Your task to perform on an android device: Open the calendar app, open the side menu, and click the "Day" option Image 0: 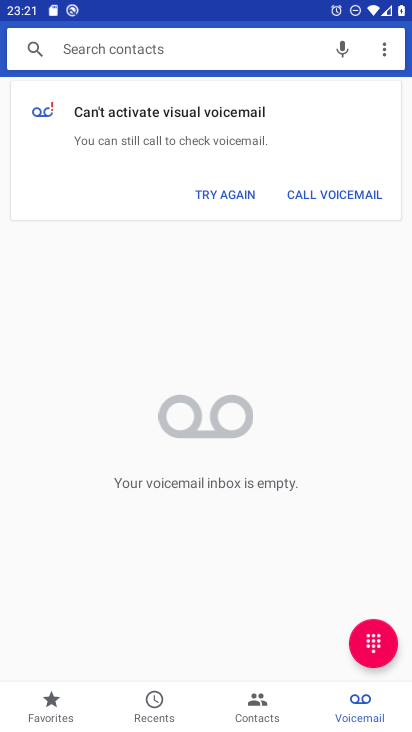
Step 0: press home button
Your task to perform on an android device: Open the calendar app, open the side menu, and click the "Day" option Image 1: 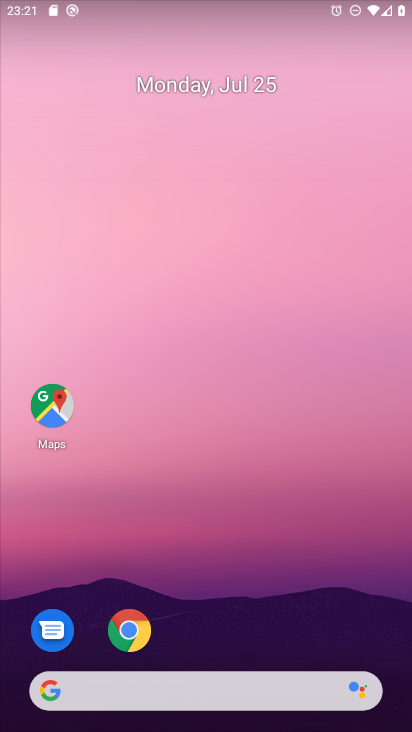
Step 1: drag from (326, 615) to (273, 107)
Your task to perform on an android device: Open the calendar app, open the side menu, and click the "Day" option Image 2: 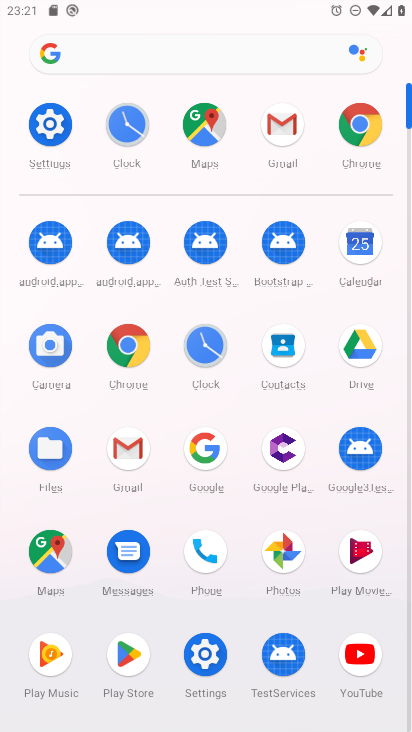
Step 2: click (358, 233)
Your task to perform on an android device: Open the calendar app, open the side menu, and click the "Day" option Image 3: 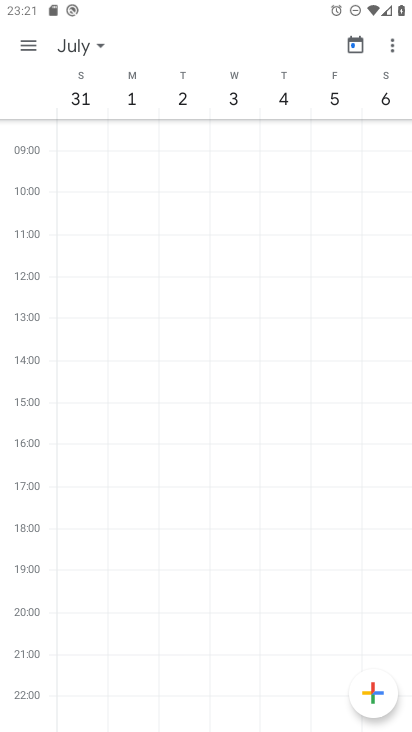
Step 3: click (29, 45)
Your task to perform on an android device: Open the calendar app, open the side menu, and click the "Day" option Image 4: 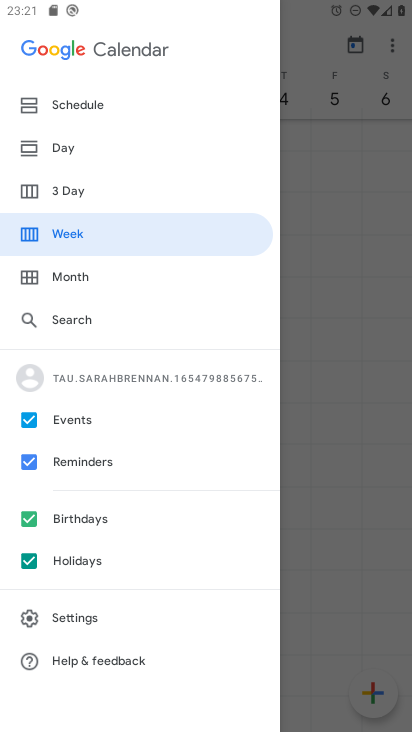
Step 4: click (79, 158)
Your task to perform on an android device: Open the calendar app, open the side menu, and click the "Day" option Image 5: 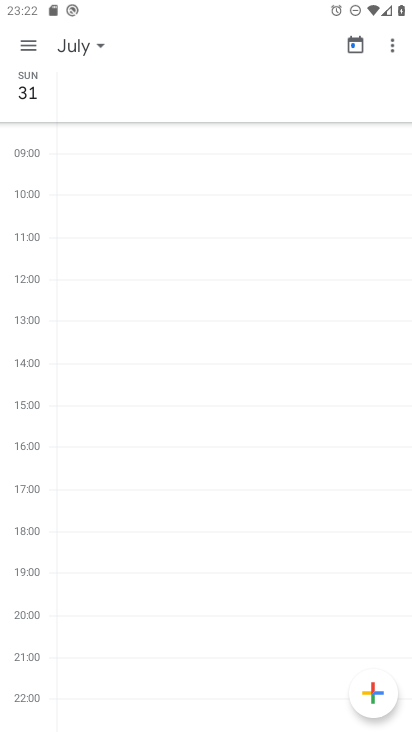
Step 5: task complete